Your task to perform on an android device: Go to notification settings Image 0: 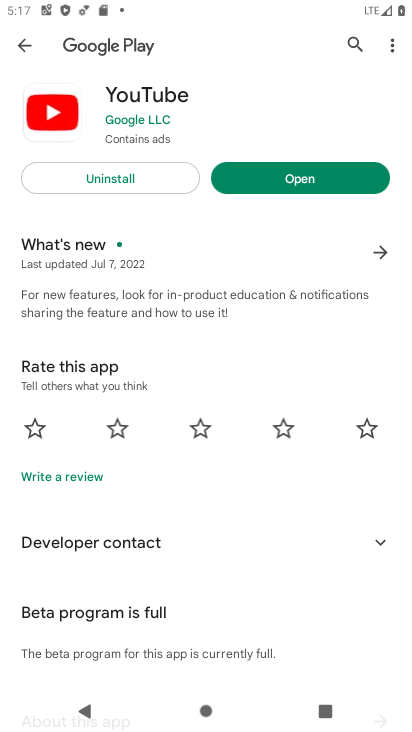
Step 0: press home button
Your task to perform on an android device: Go to notification settings Image 1: 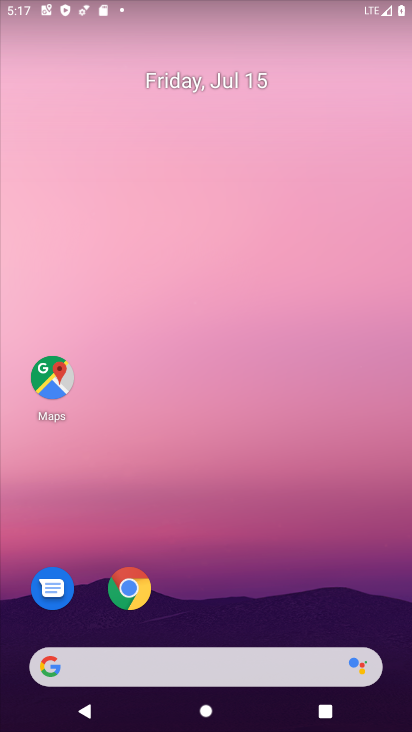
Step 1: drag from (278, 550) to (275, 2)
Your task to perform on an android device: Go to notification settings Image 2: 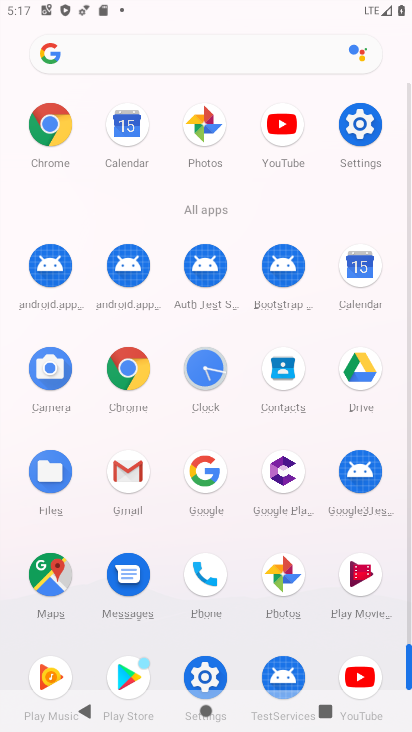
Step 2: click (356, 135)
Your task to perform on an android device: Go to notification settings Image 3: 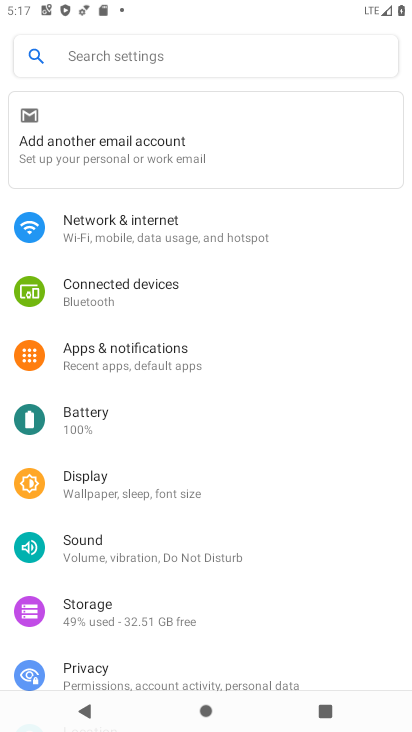
Step 3: click (179, 363)
Your task to perform on an android device: Go to notification settings Image 4: 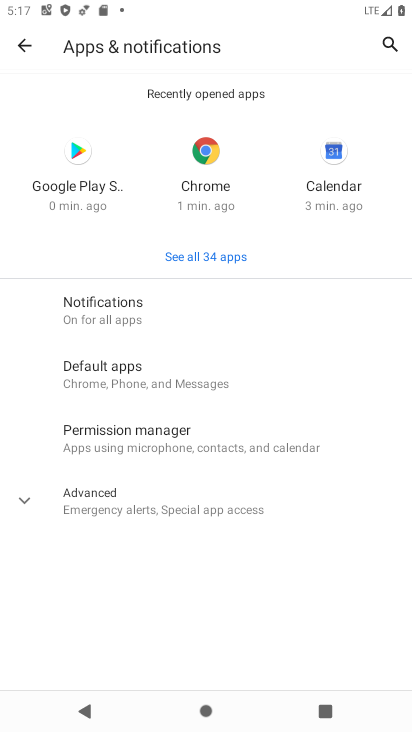
Step 4: task complete